Your task to perform on an android device: turn vacation reply on in the gmail app Image 0: 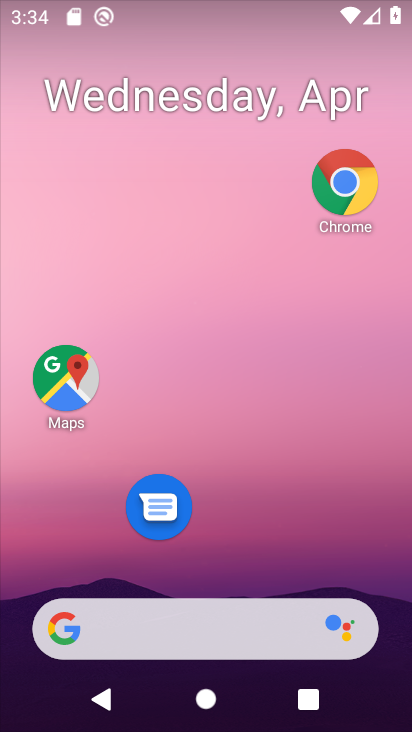
Step 0: drag from (273, 558) to (290, 22)
Your task to perform on an android device: turn vacation reply on in the gmail app Image 1: 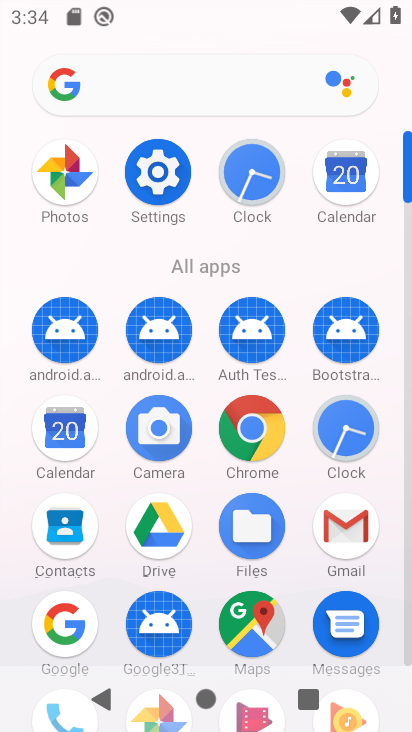
Step 1: click (341, 516)
Your task to perform on an android device: turn vacation reply on in the gmail app Image 2: 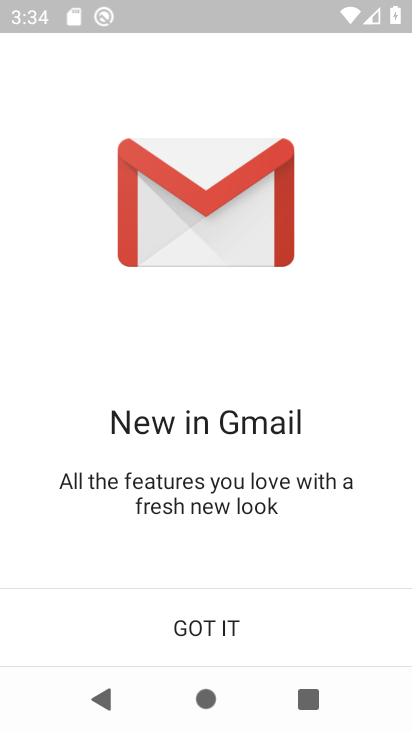
Step 2: click (235, 621)
Your task to perform on an android device: turn vacation reply on in the gmail app Image 3: 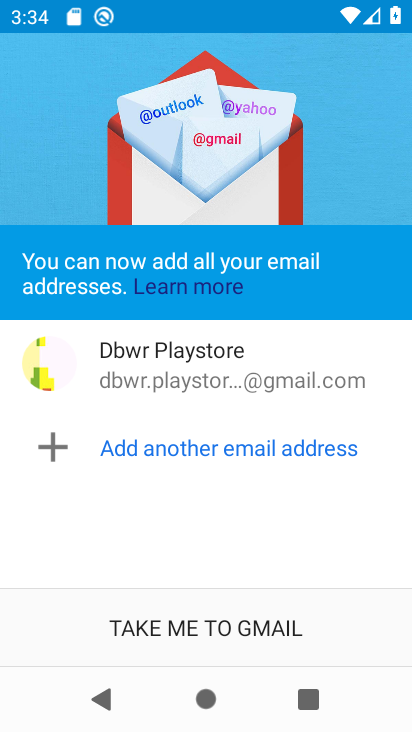
Step 3: click (229, 619)
Your task to perform on an android device: turn vacation reply on in the gmail app Image 4: 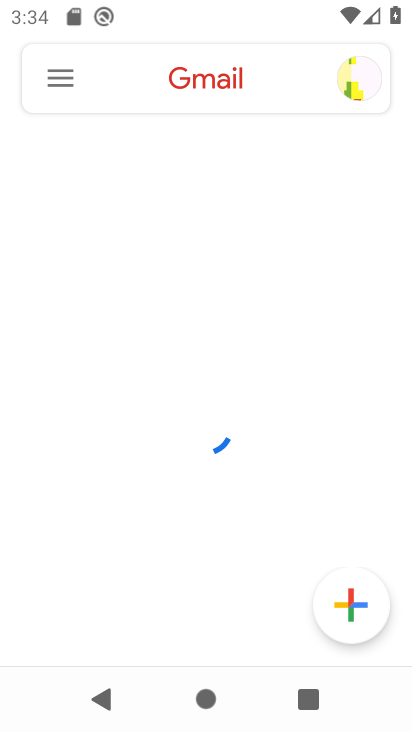
Step 4: click (66, 80)
Your task to perform on an android device: turn vacation reply on in the gmail app Image 5: 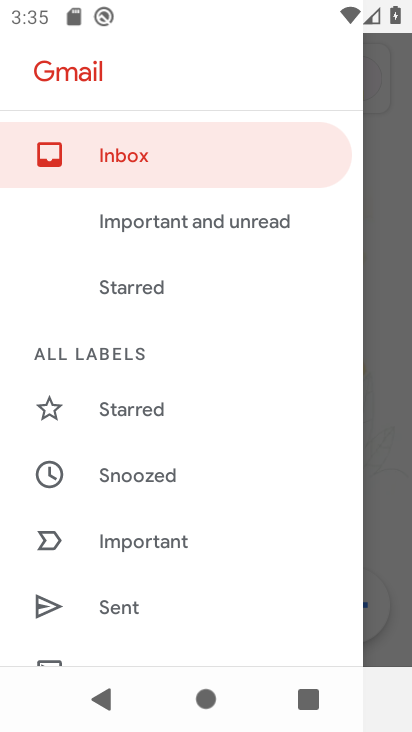
Step 5: drag from (140, 579) to (232, 90)
Your task to perform on an android device: turn vacation reply on in the gmail app Image 6: 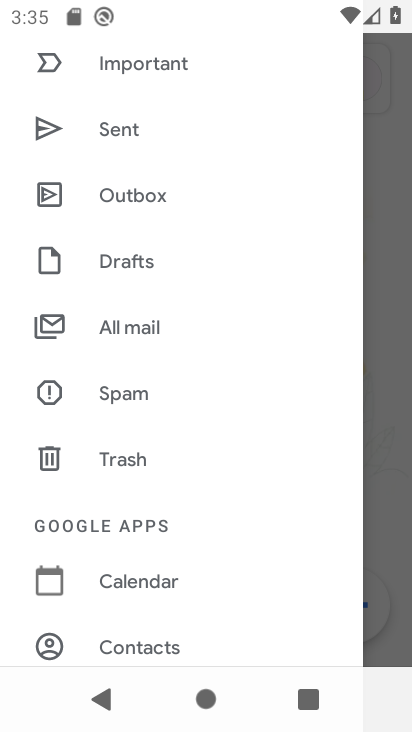
Step 6: drag from (153, 585) to (241, 173)
Your task to perform on an android device: turn vacation reply on in the gmail app Image 7: 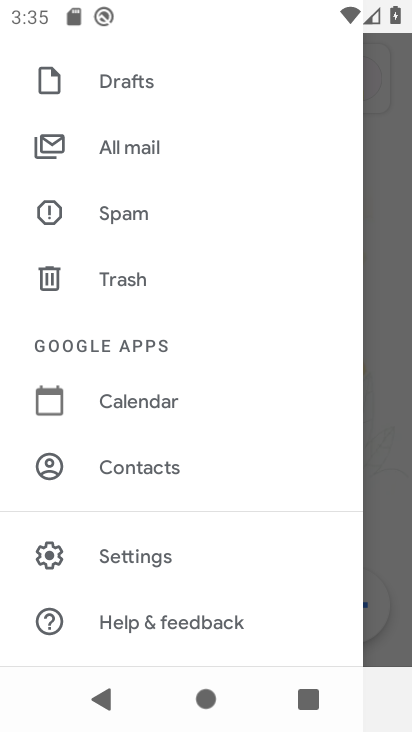
Step 7: click (146, 560)
Your task to perform on an android device: turn vacation reply on in the gmail app Image 8: 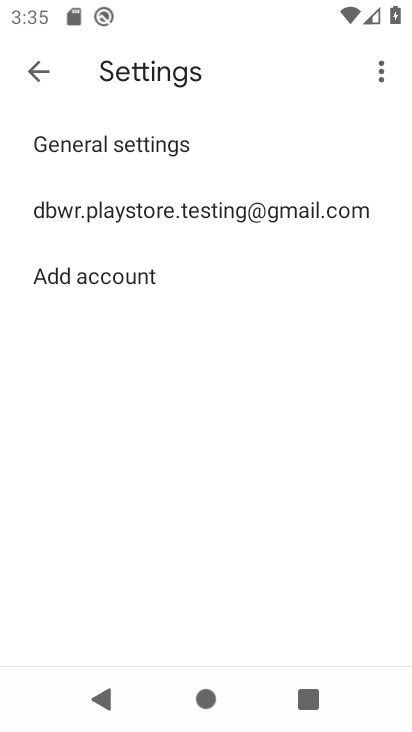
Step 8: click (118, 204)
Your task to perform on an android device: turn vacation reply on in the gmail app Image 9: 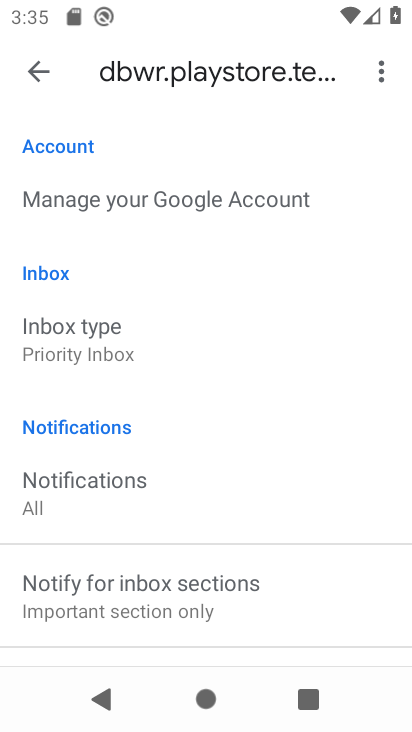
Step 9: drag from (119, 551) to (241, 133)
Your task to perform on an android device: turn vacation reply on in the gmail app Image 10: 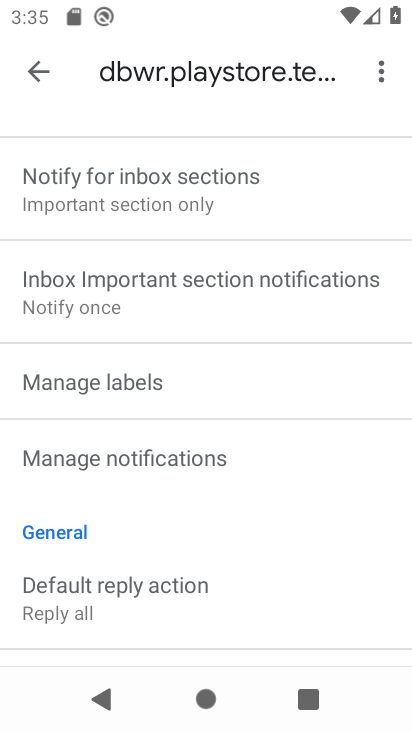
Step 10: drag from (162, 476) to (235, 163)
Your task to perform on an android device: turn vacation reply on in the gmail app Image 11: 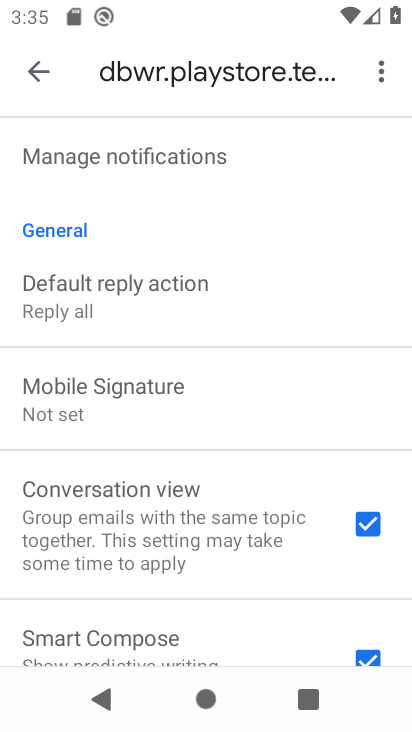
Step 11: drag from (154, 512) to (219, 177)
Your task to perform on an android device: turn vacation reply on in the gmail app Image 12: 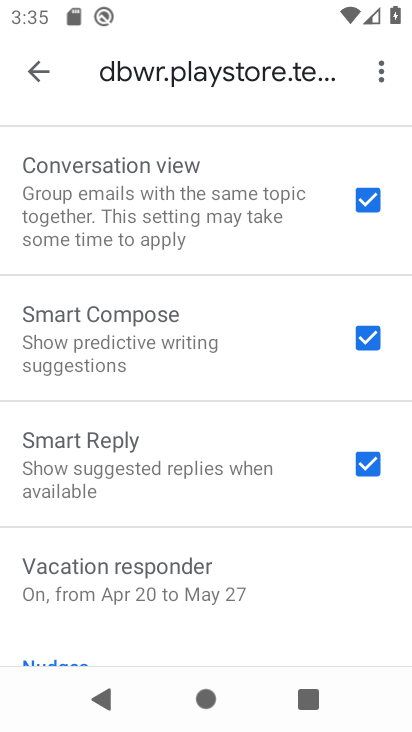
Step 12: click (129, 583)
Your task to perform on an android device: turn vacation reply on in the gmail app Image 13: 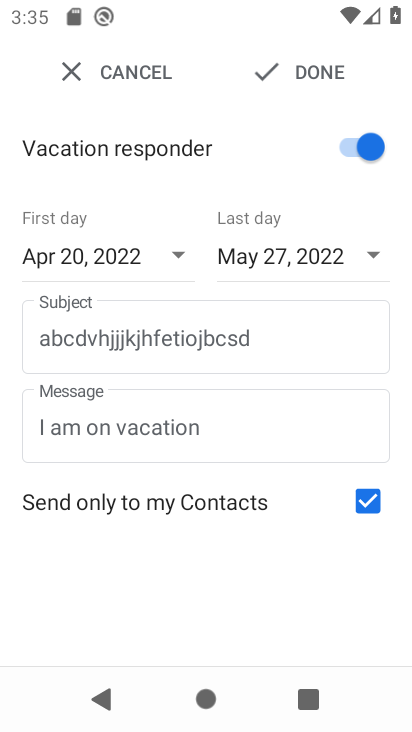
Step 13: task complete